Your task to perform on an android device: Search for "usb-c to usb-a" on walmart.com, select the first entry, and add it to the cart. Image 0: 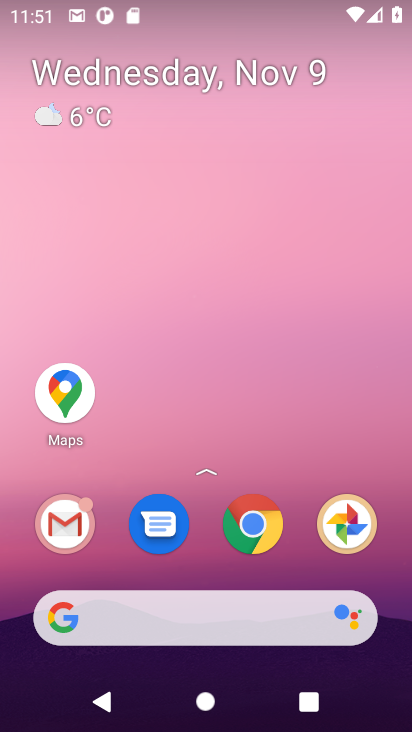
Step 0: click (260, 531)
Your task to perform on an android device: Search for "usb-c to usb-a" on walmart.com, select the first entry, and add it to the cart. Image 1: 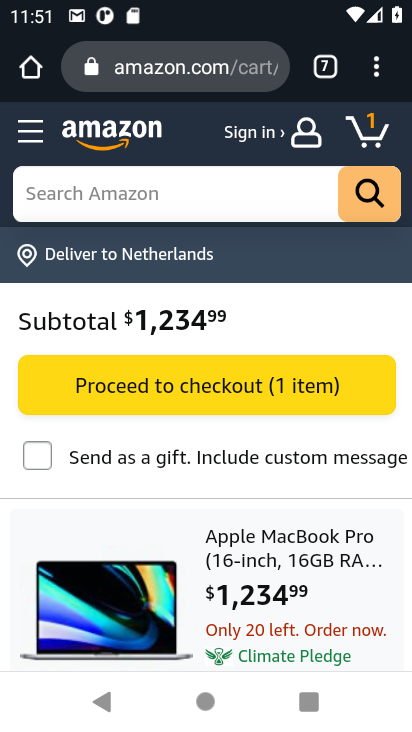
Step 1: click (328, 62)
Your task to perform on an android device: Search for "usb-c to usb-a" on walmart.com, select the first entry, and add it to the cart. Image 2: 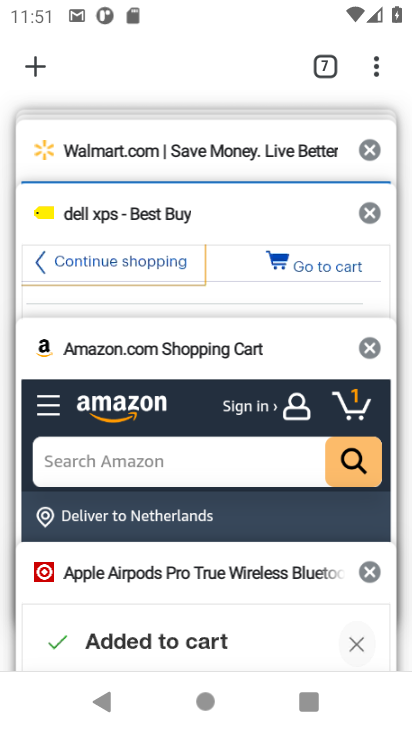
Step 2: click (236, 158)
Your task to perform on an android device: Search for "usb-c to usb-a" on walmart.com, select the first entry, and add it to the cart. Image 3: 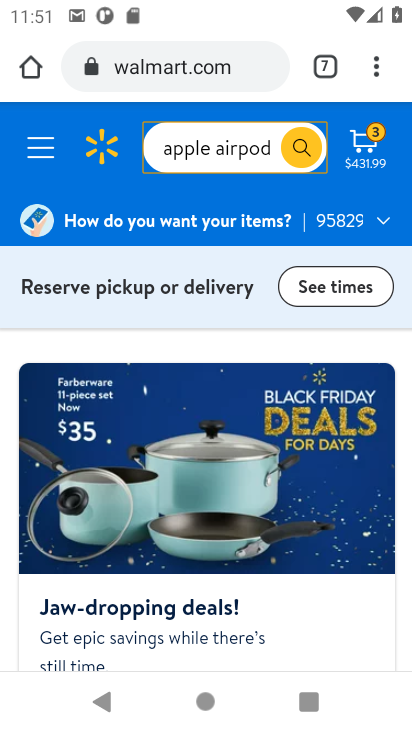
Step 3: click (216, 154)
Your task to perform on an android device: Search for "usb-c to usb-a" on walmart.com, select the first entry, and add it to the cart. Image 4: 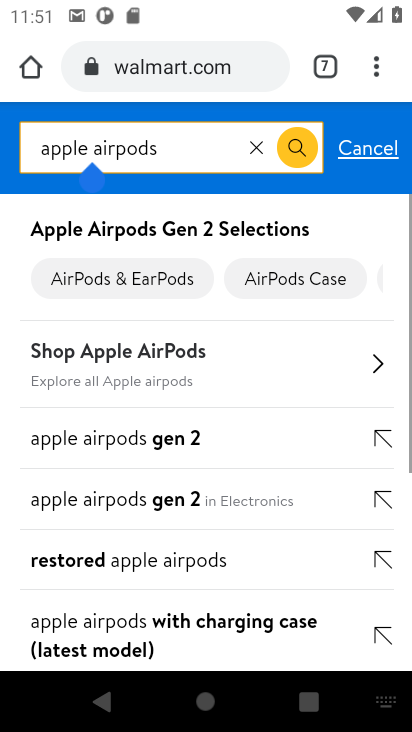
Step 4: click (257, 144)
Your task to perform on an android device: Search for "usb-c to usb-a" on walmart.com, select the first entry, and add it to the cart. Image 5: 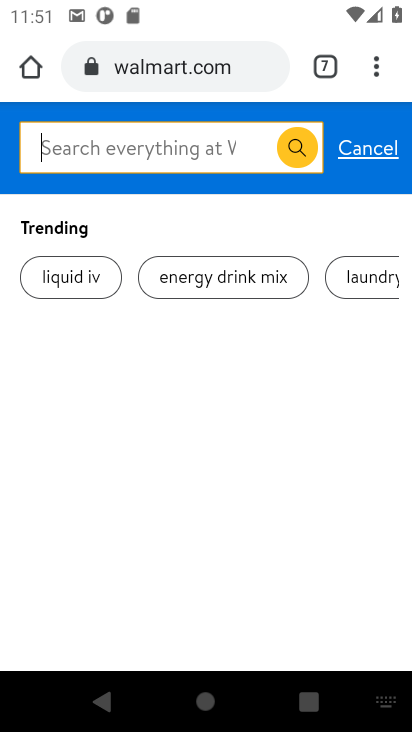
Step 5: type "usb-c to usb-a"
Your task to perform on an android device: Search for "usb-c to usb-a" on walmart.com, select the first entry, and add it to the cart. Image 6: 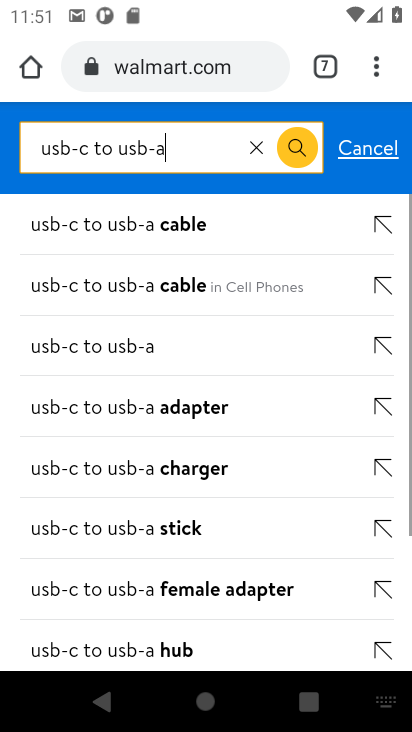
Step 6: click (168, 288)
Your task to perform on an android device: Search for "usb-c to usb-a" on walmart.com, select the first entry, and add it to the cart. Image 7: 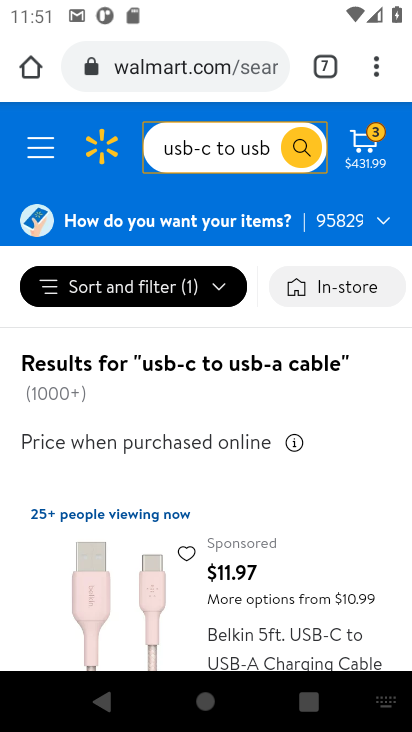
Step 7: drag from (302, 568) to (387, 355)
Your task to perform on an android device: Search for "usb-c to usb-a" on walmart.com, select the first entry, and add it to the cart. Image 8: 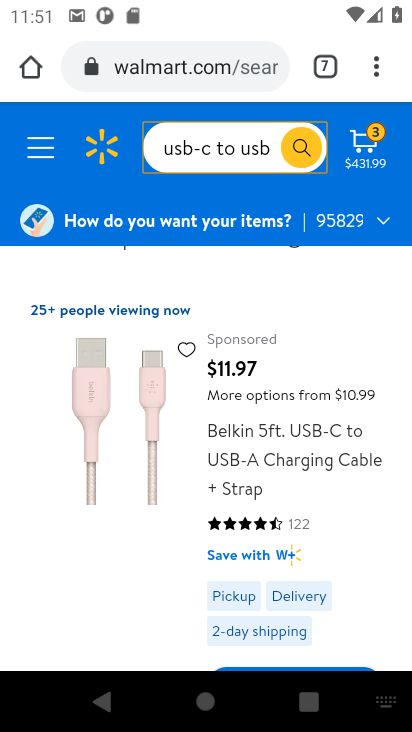
Step 8: drag from (310, 511) to (342, 361)
Your task to perform on an android device: Search for "usb-c to usb-a" on walmart.com, select the first entry, and add it to the cart. Image 9: 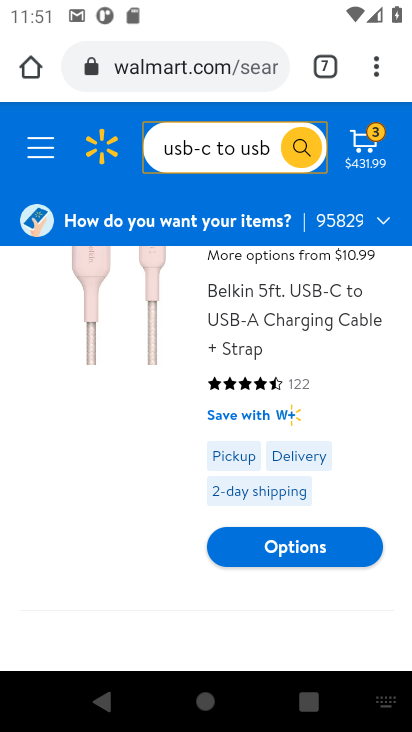
Step 9: click (352, 302)
Your task to perform on an android device: Search for "usb-c to usb-a" on walmart.com, select the first entry, and add it to the cart. Image 10: 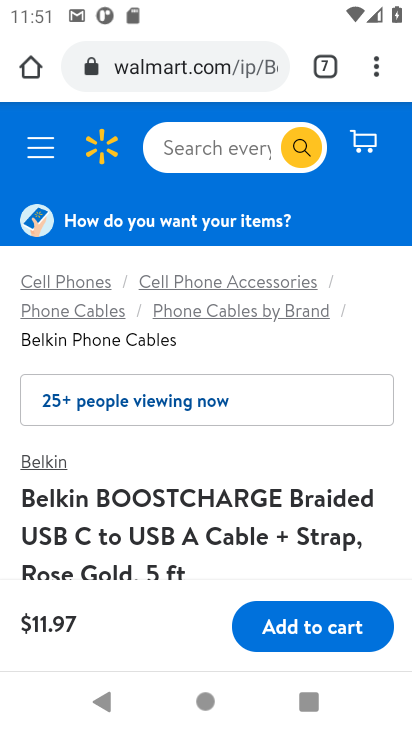
Step 10: click (293, 618)
Your task to perform on an android device: Search for "usb-c to usb-a" on walmart.com, select the first entry, and add it to the cart. Image 11: 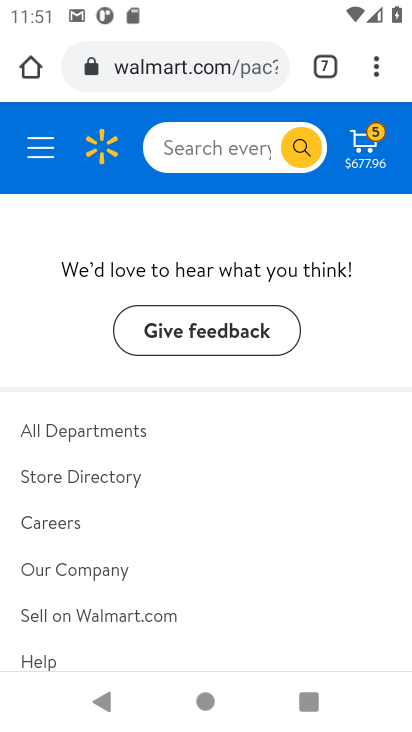
Step 11: task complete